Your task to perform on an android device: change the upload size in google photos Image 0: 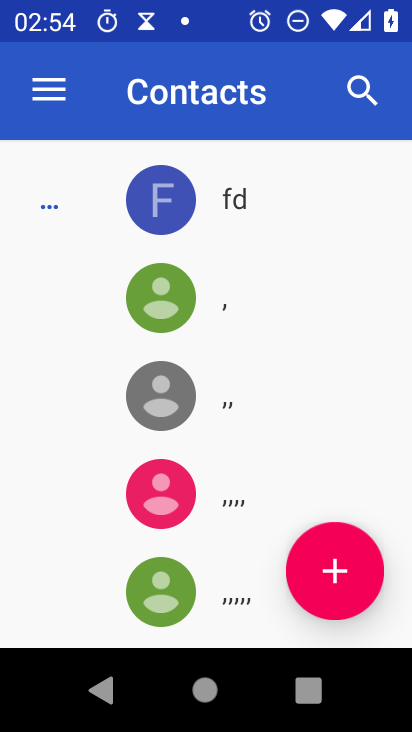
Step 0: press home button
Your task to perform on an android device: change the upload size in google photos Image 1: 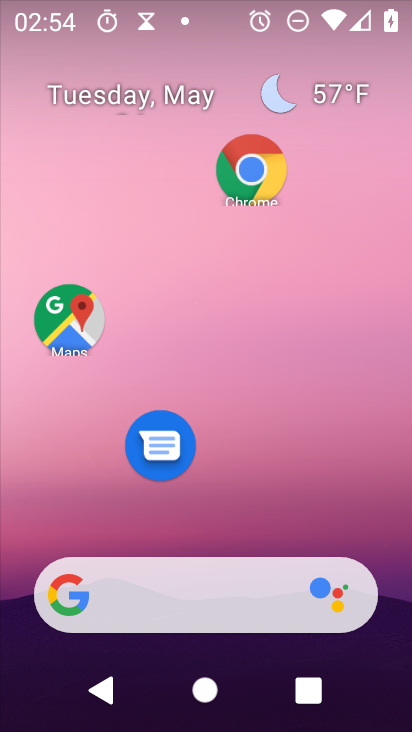
Step 1: drag from (207, 727) to (199, 66)
Your task to perform on an android device: change the upload size in google photos Image 2: 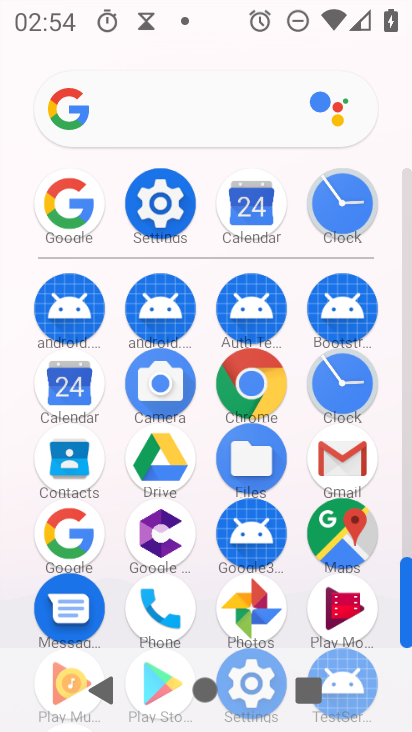
Step 2: click (255, 608)
Your task to perform on an android device: change the upload size in google photos Image 3: 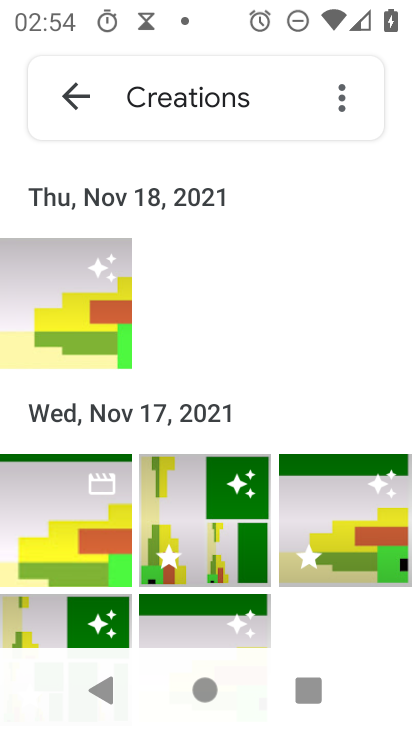
Step 3: click (71, 93)
Your task to perform on an android device: change the upload size in google photos Image 4: 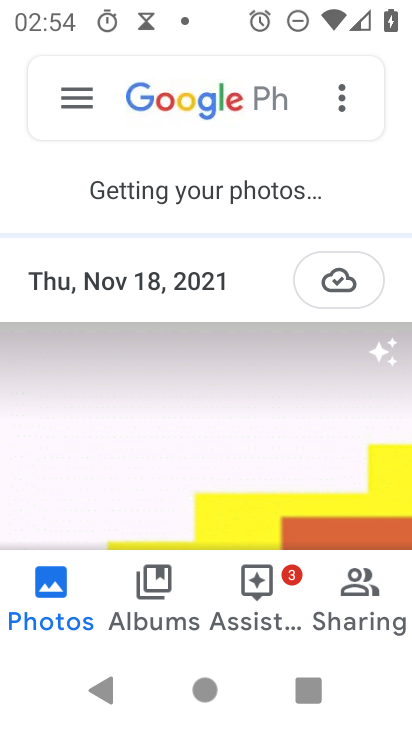
Step 4: click (72, 99)
Your task to perform on an android device: change the upload size in google photos Image 5: 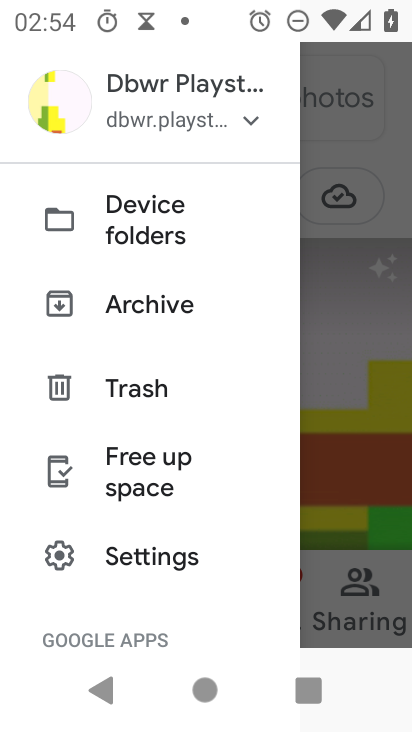
Step 5: drag from (153, 571) to (120, 228)
Your task to perform on an android device: change the upload size in google photos Image 6: 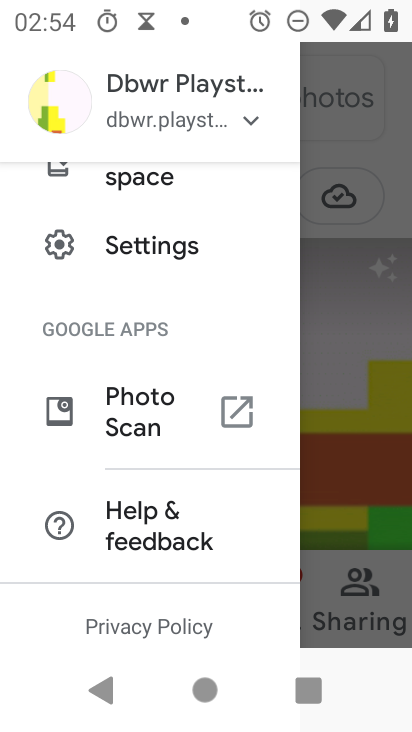
Step 6: click (140, 247)
Your task to perform on an android device: change the upload size in google photos Image 7: 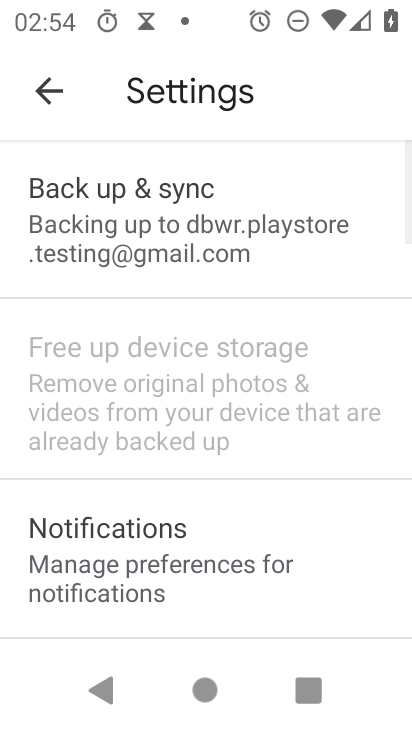
Step 7: click (142, 231)
Your task to perform on an android device: change the upload size in google photos Image 8: 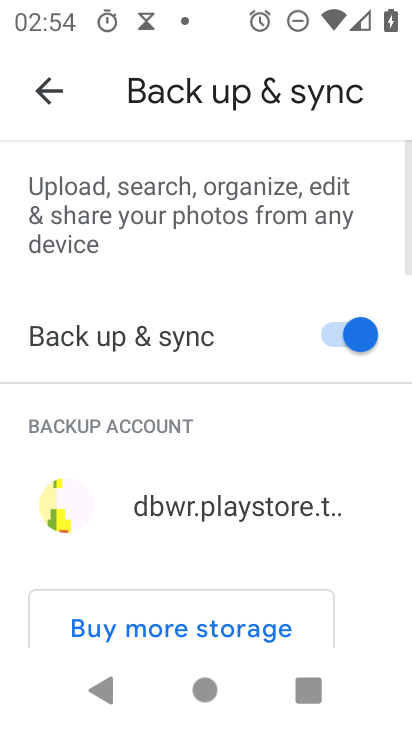
Step 8: drag from (172, 596) to (174, 180)
Your task to perform on an android device: change the upload size in google photos Image 9: 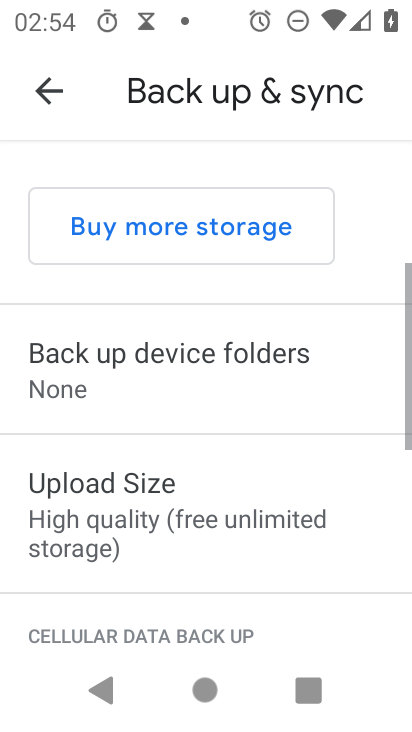
Step 9: drag from (162, 371) to (151, 250)
Your task to perform on an android device: change the upload size in google photos Image 10: 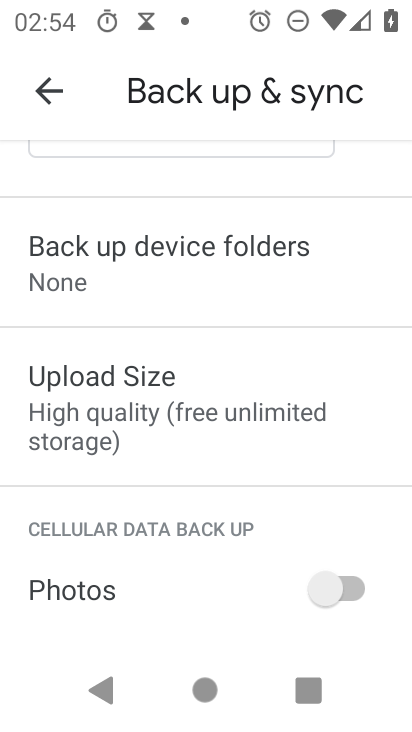
Step 10: click (107, 398)
Your task to perform on an android device: change the upload size in google photos Image 11: 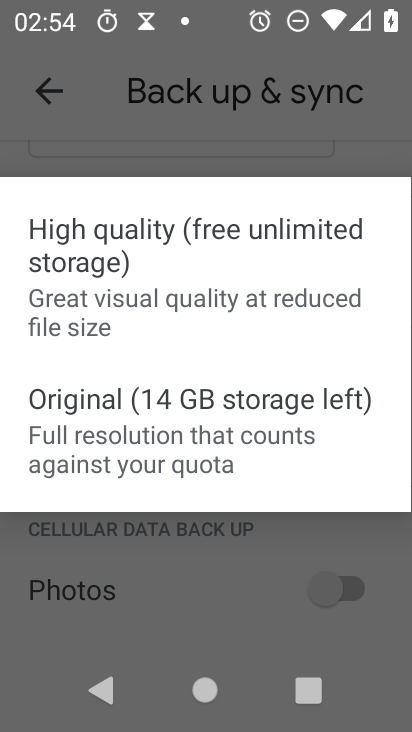
Step 11: click (145, 434)
Your task to perform on an android device: change the upload size in google photos Image 12: 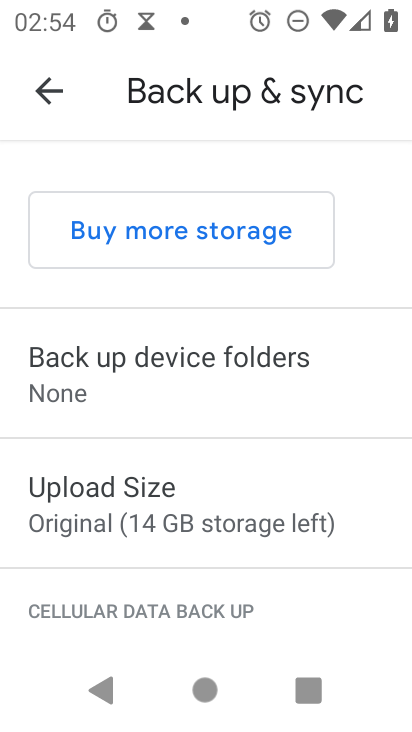
Step 12: task complete